Your task to perform on an android device: turn off javascript in the chrome app Image 0: 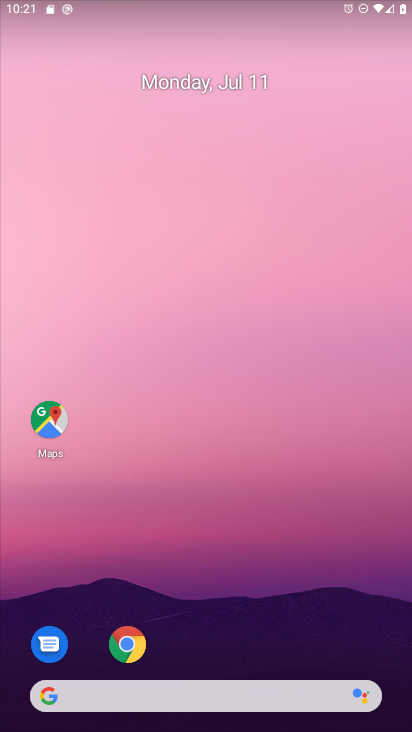
Step 0: click (114, 655)
Your task to perform on an android device: turn off javascript in the chrome app Image 1: 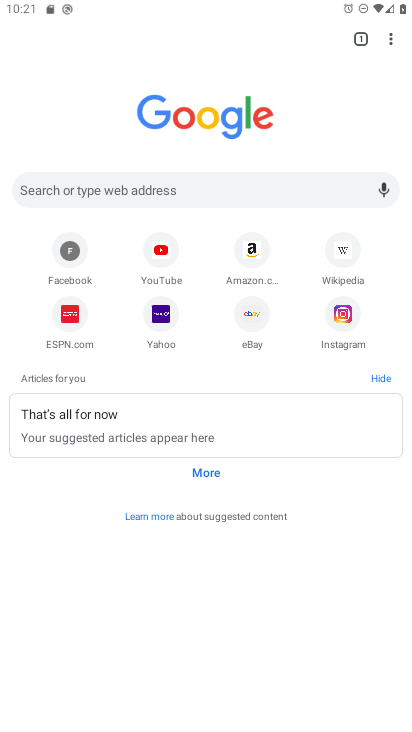
Step 1: click (388, 36)
Your task to perform on an android device: turn off javascript in the chrome app Image 2: 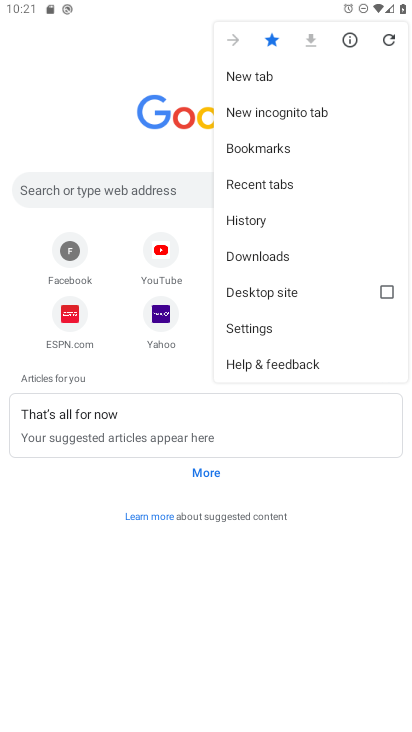
Step 2: click (247, 330)
Your task to perform on an android device: turn off javascript in the chrome app Image 3: 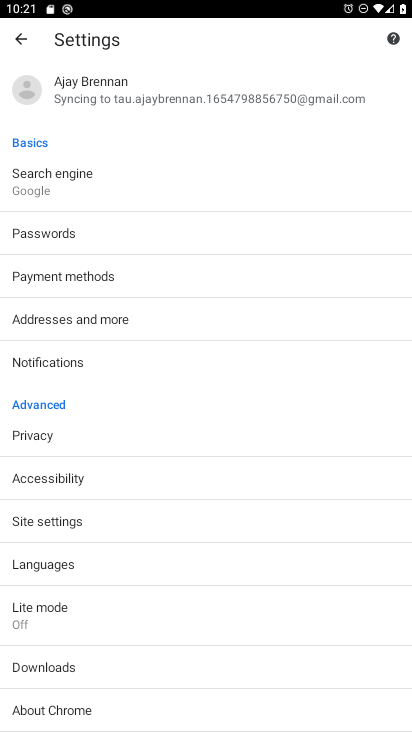
Step 3: click (50, 519)
Your task to perform on an android device: turn off javascript in the chrome app Image 4: 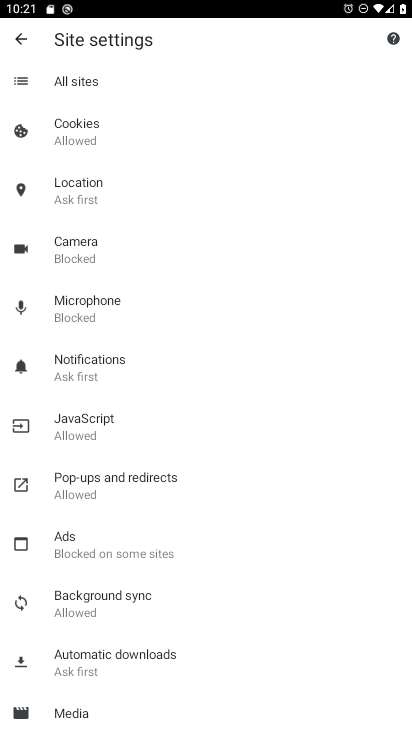
Step 4: click (98, 425)
Your task to perform on an android device: turn off javascript in the chrome app Image 5: 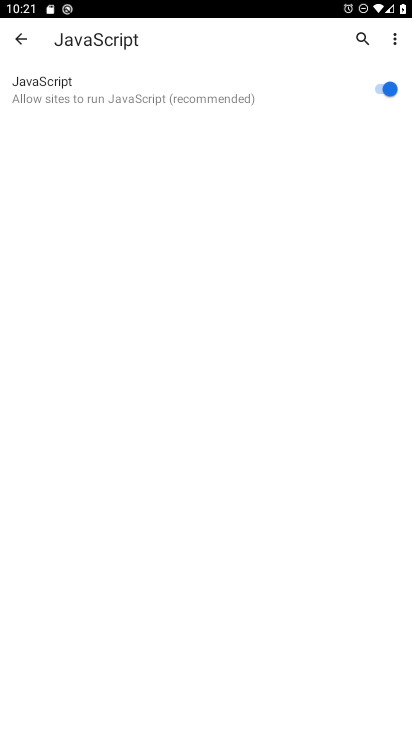
Step 5: click (381, 92)
Your task to perform on an android device: turn off javascript in the chrome app Image 6: 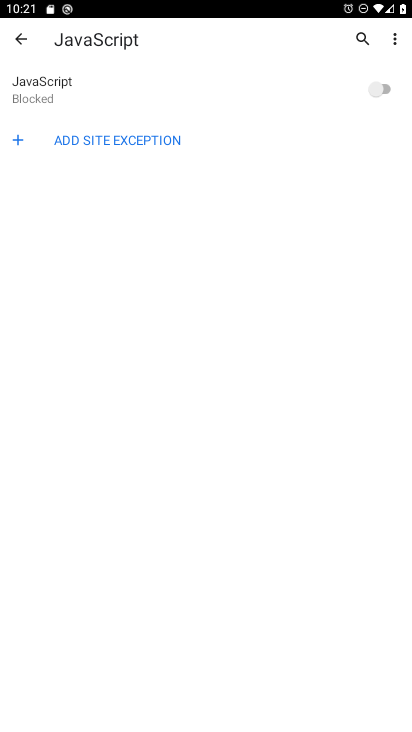
Step 6: task complete